Your task to perform on an android device: Open settings Image 0: 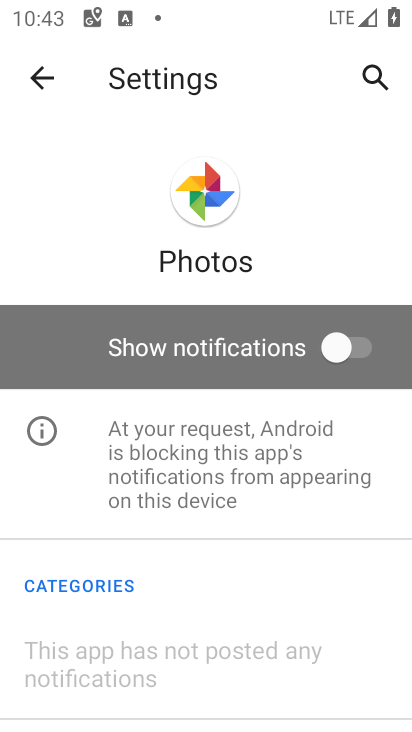
Step 0: press home button
Your task to perform on an android device: Open settings Image 1: 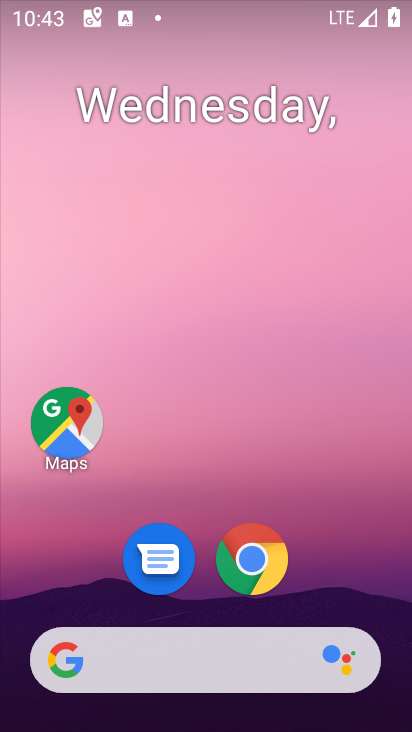
Step 1: drag from (198, 708) to (217, 225)
Your task to perform on an android device: Open settings Image 2: 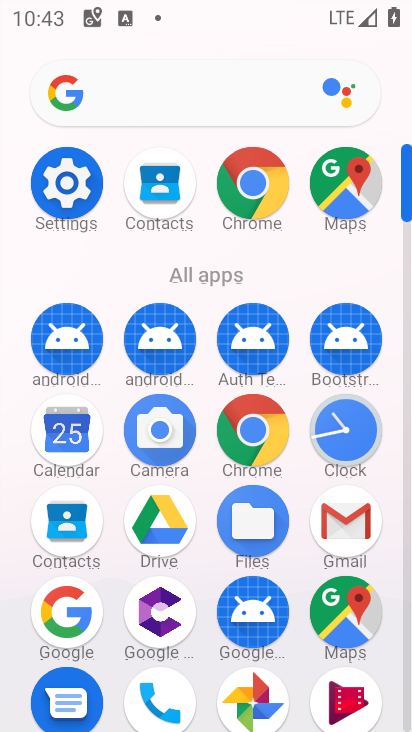
Step 2: click (85, 197)
Your task to perform on an android device: Open settings Image 3: 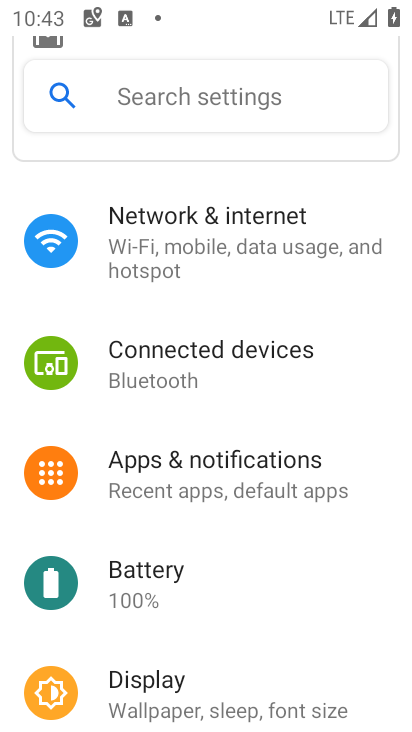
Step 3: task complete